Your task to perform on an android device: turn off notifications in google photos Image 0: 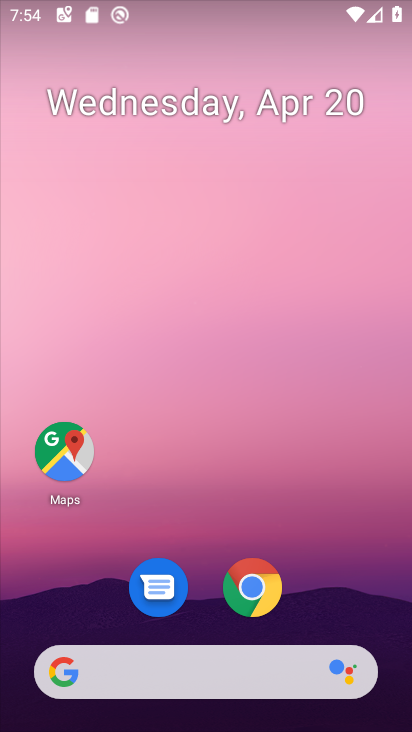
Step 0: drag from (346, 610) to (181, 4)
Your task to perform on an android device: turn off notifications in google photos Image 1: 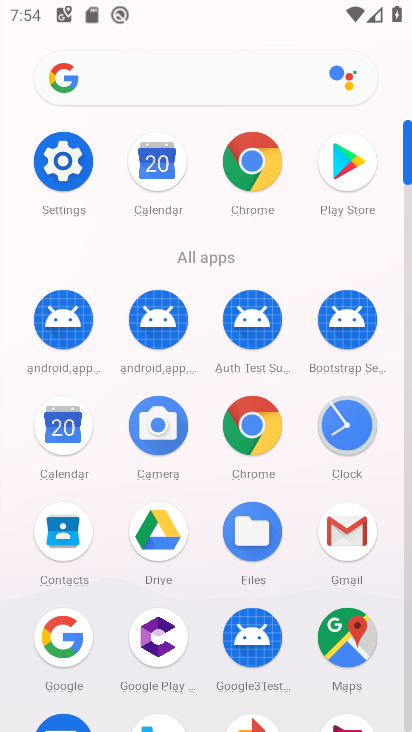
Step 1: click (261, 724)
Your task to perform on an android device: turn off notifications in google photos Image 2: 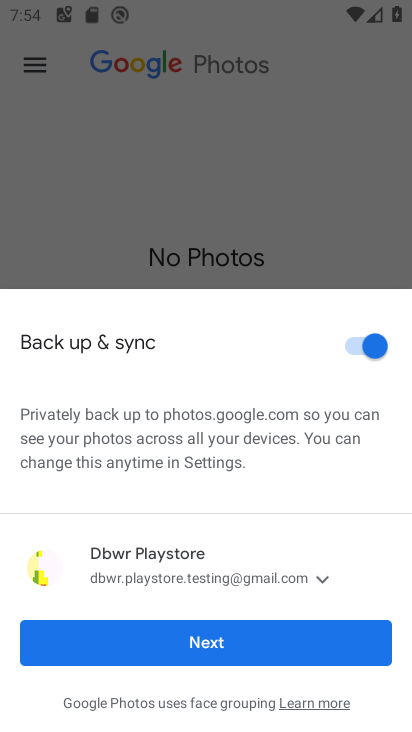
Step 2: click (219, 646)
Your task to perform on an android device: turn off notifications in google photos Image 3: 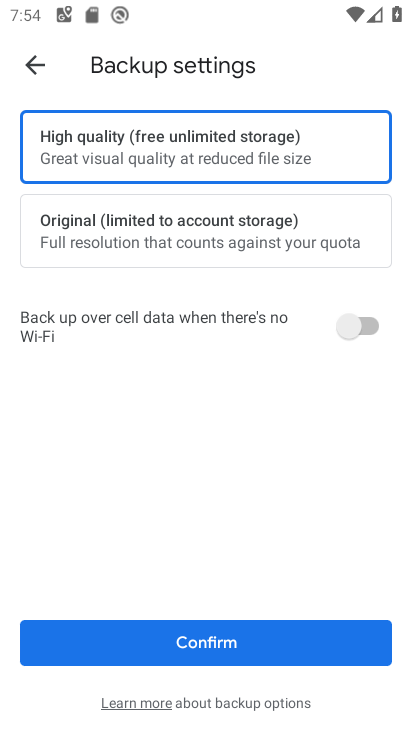
Step 3: click (153, 648)
Your task to perform on an android device: turn off notifications in google photos Image 4: 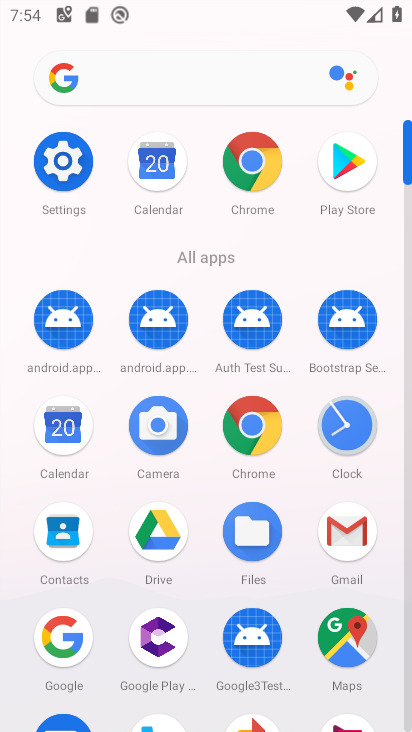
Step 4: click (244, 728)
Your task to perform on an android device: turn off notifications in google photos Image 5: 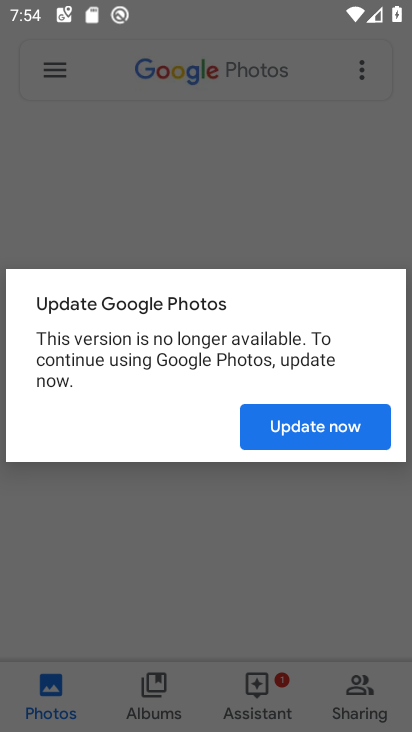
Step 5: click (264, 444)
Your task to perform on an android device: turn off notifications in google photos Image 6: 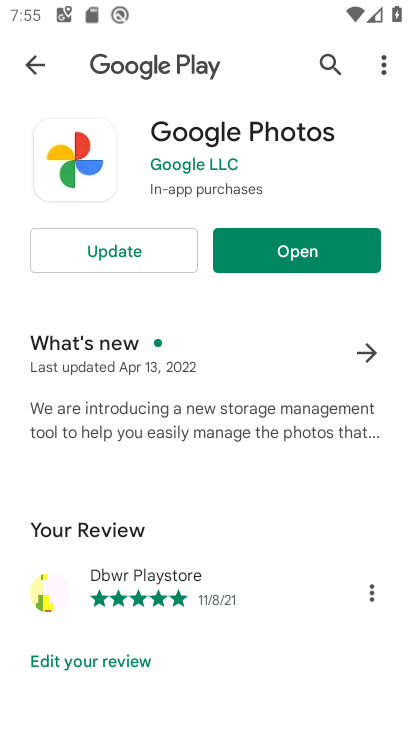
Step 6: click (136, 250)
Your task to perform on an android device: turn off notifications in google photos Image 7: 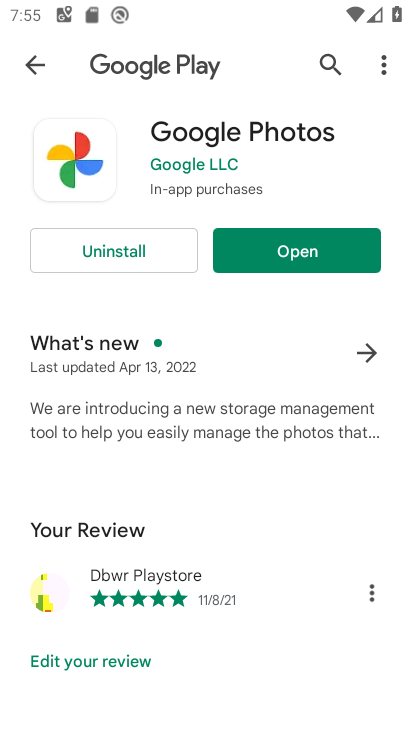
Step 7: click (277, 243)
Your task to perform on an android device: turn off notifications in google photos Image 8: 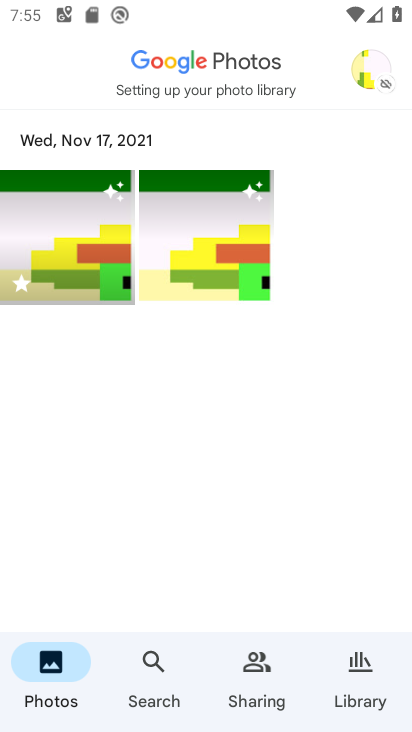
Step 8: click (355, 69)
Your task to perform on an android device: turn off notifications in google photos Image 9: 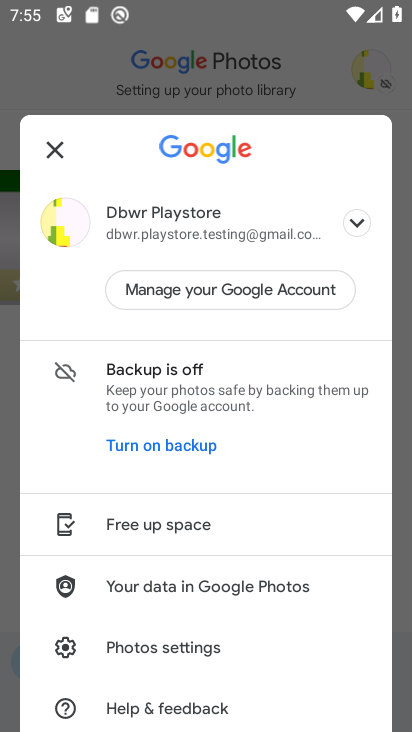
Step 9: drag from (216, 644) to (203, 396)
Your task to perform on an android device: turn off notifications in google photos Image 10: 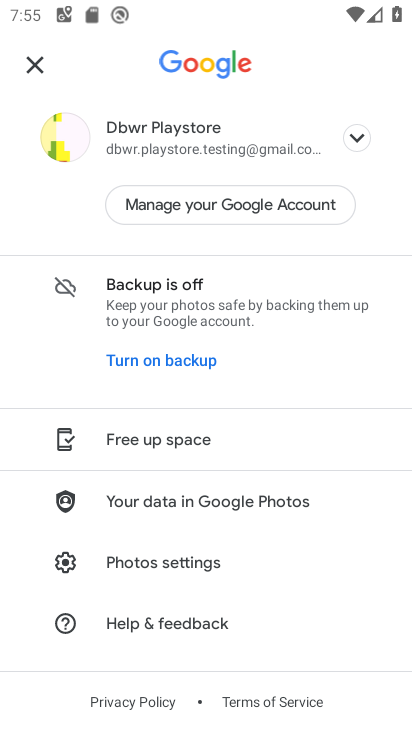
Step 10: click (193, 567)
Your task to perform on an android device: turn off notifications in google photos Image 11: 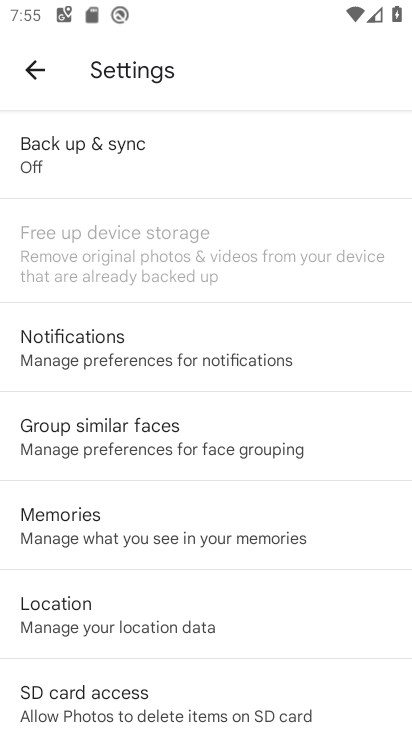
Step 11: click (140, 371)
Your task to perform on an android device: turn off notifications in google photos Image 12: 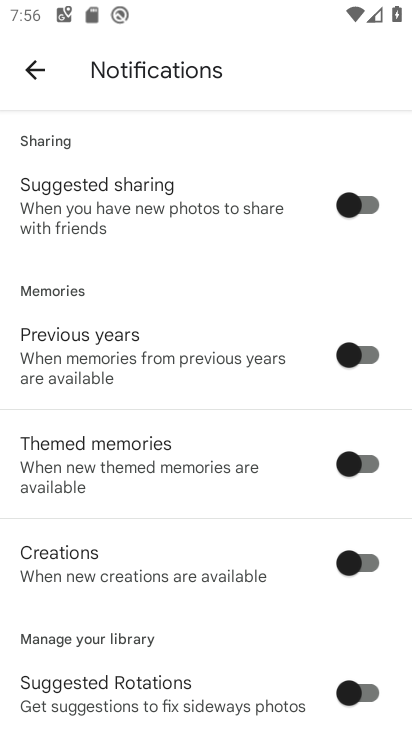
Step 12: click (334, 205)
Your task to perform on an android device: turn off notifications in google photos Image 13: 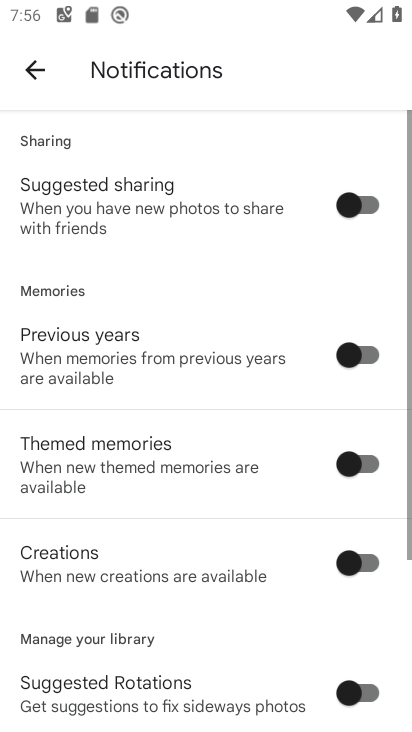
Step 13: task complete